Your task to perform on an android device: turn on wifi Image 0: 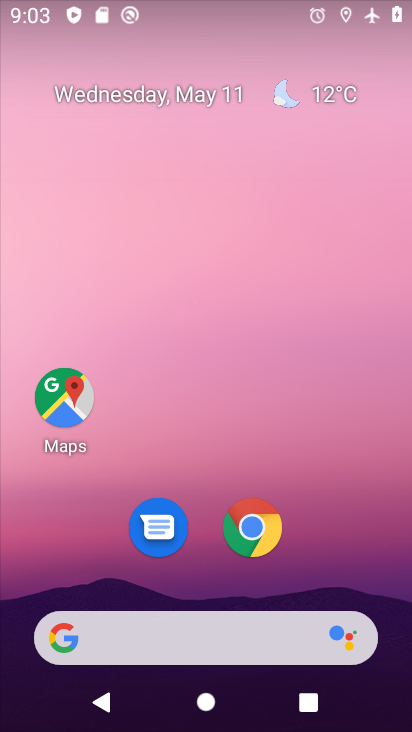
Step 0: drag from (280, 23) to (283, 511)
Your task to perform on an android device: turn on wifi Image 1: 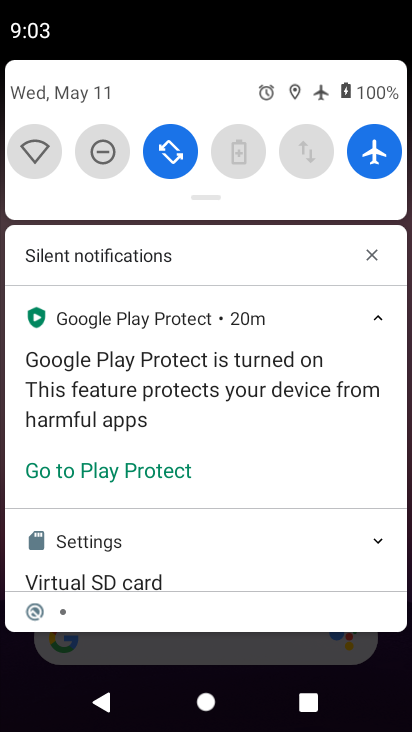
Step 1: click (34, 151)
Your task to perform on an android device: turn on wifi Image 2: 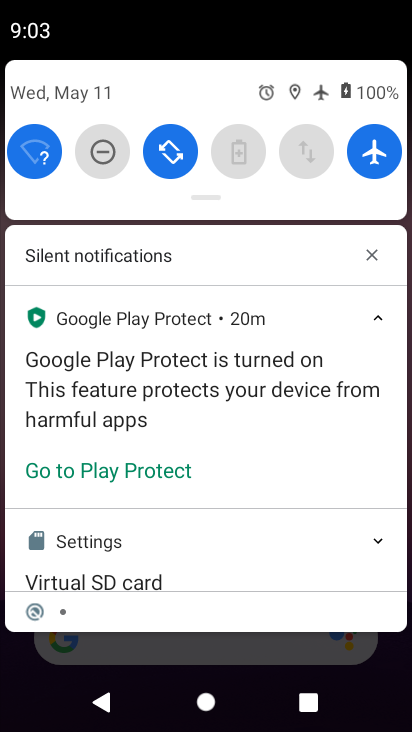
Step 2: task complete